Your task to perform on an android device: Search for the best rated headphones on AliExpress. Image 0: 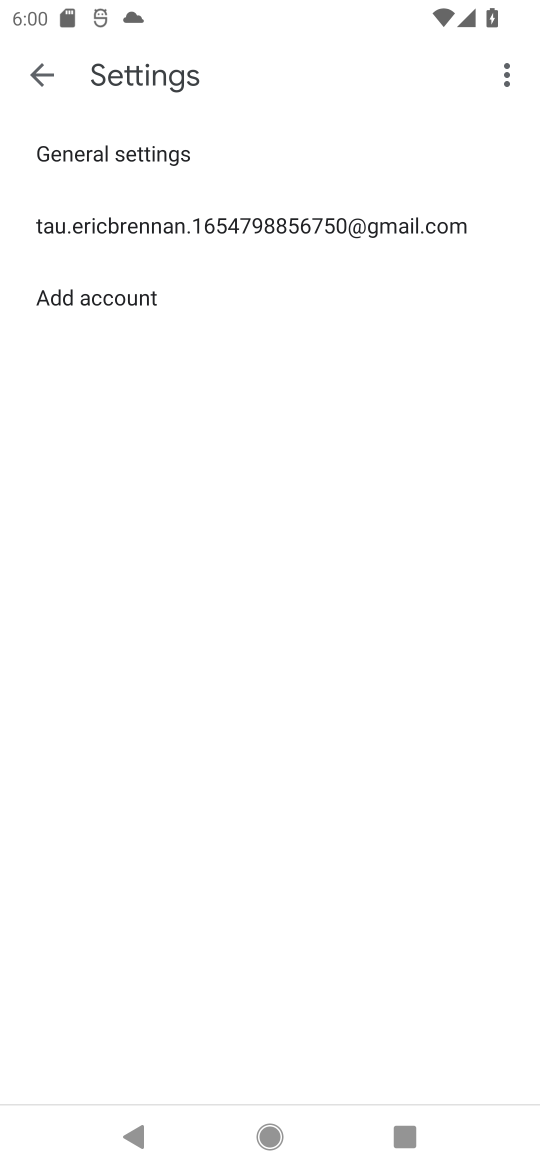
Step 0: press home button
Your task to perform on an android device: Search for the best rated headphones on AliExpress. Image 1: 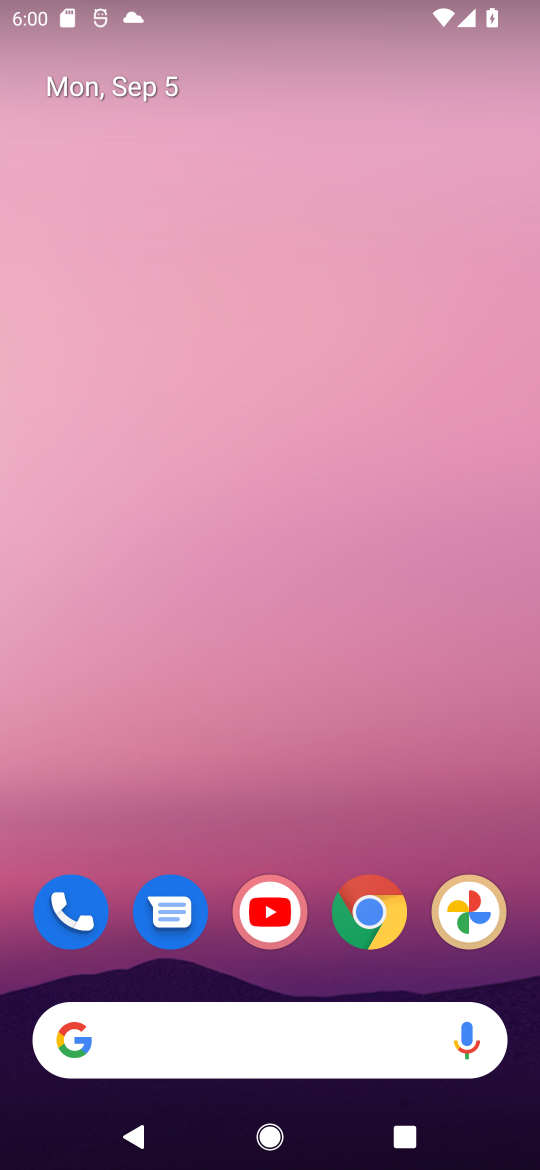
Step 1: click (363, 907)
Your task to perform on an android device: Search for the best rated headphones on AliExpress. Image 2: 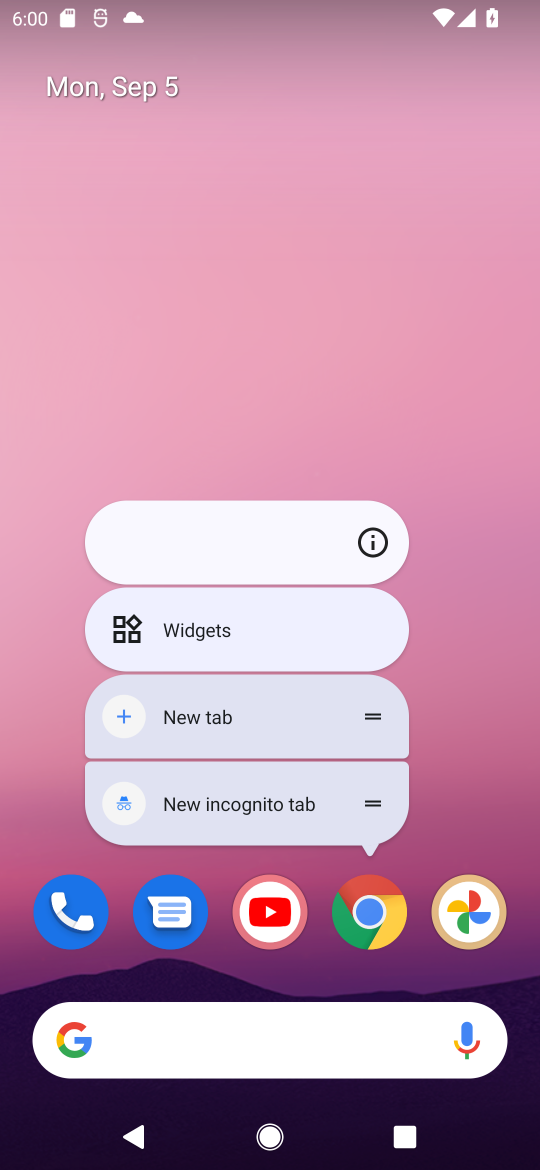
Step 2: click (363, 913)
Your task to perform on an android device: Search for the best rated headphones on AliExpress. Image 3: 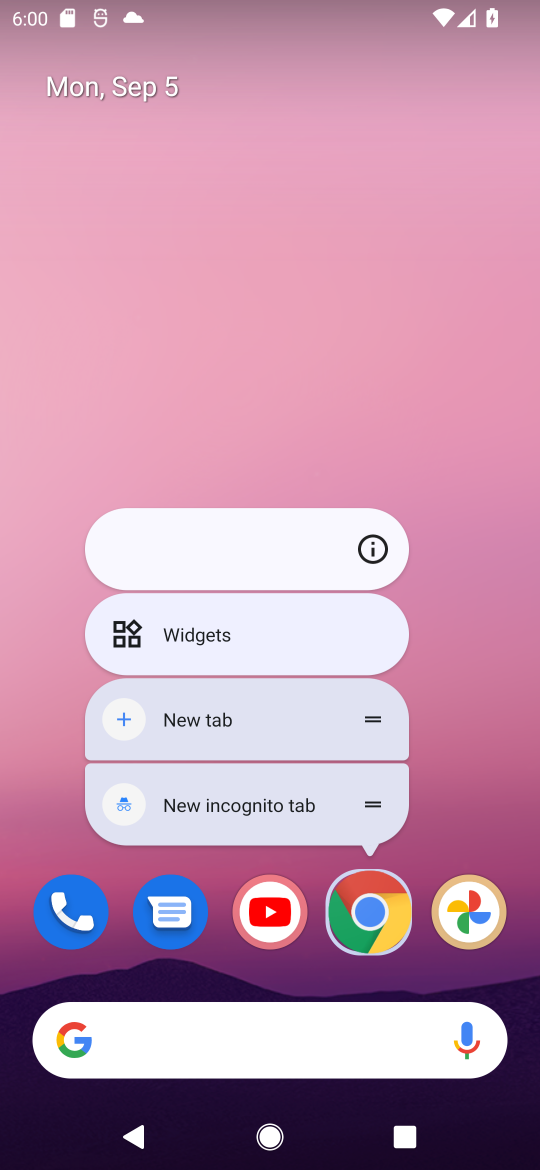
Step 3: click (362, 908)
Your task to perform on an android device: Search for the best rated headphones on AliExpress. Image 4: 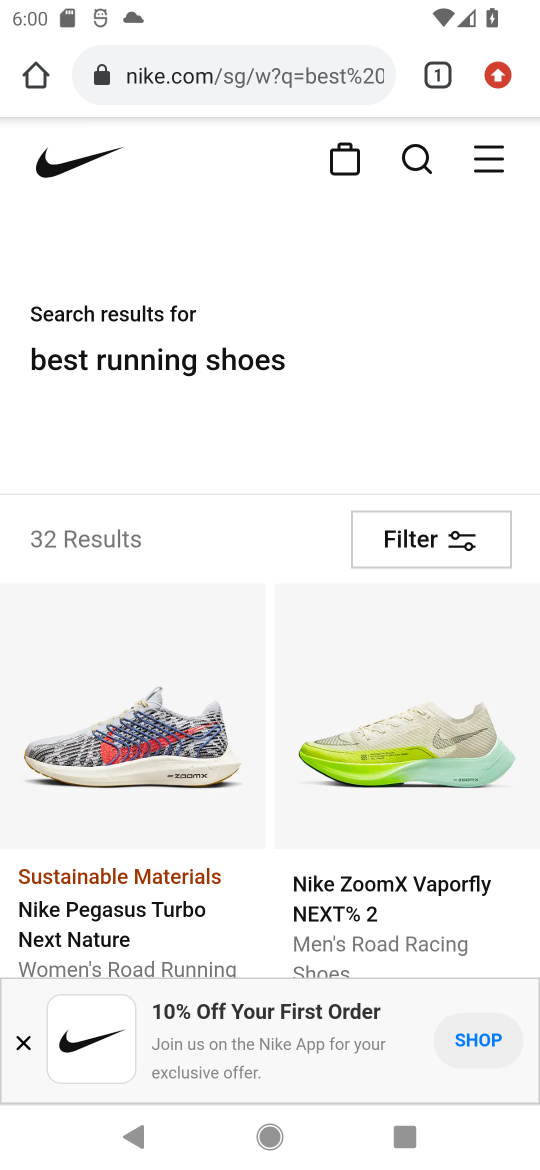
Step 4: click (257, 69)
Your task to perform on an android device: Search for the best rated headphones on AliExpress. Image 5: 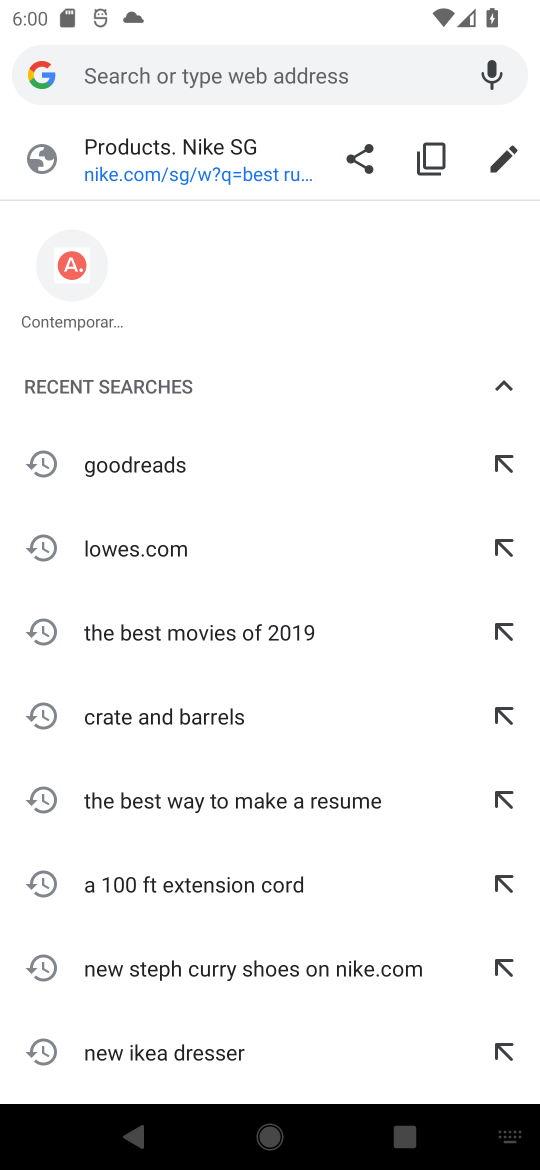
Step 5: type "AliExpress"
Your task to perform on an android device: Search for the best rated headphones on AliExpress. Image 6: 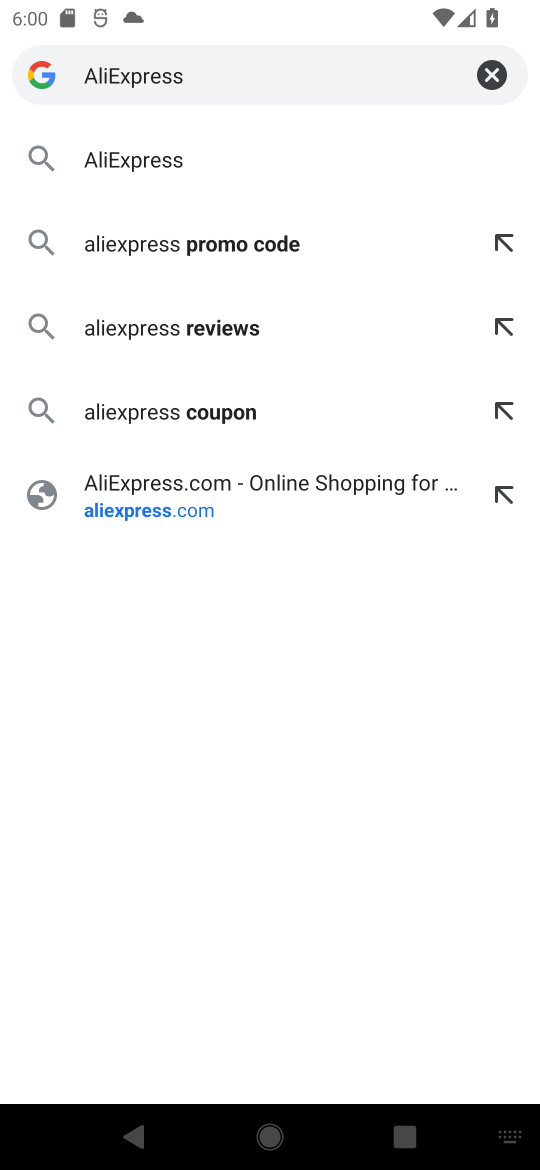
Step 6: click (165, 186)
Your task to perform on an android device: Search for the best rated headphones on AliExpress. Image 7: 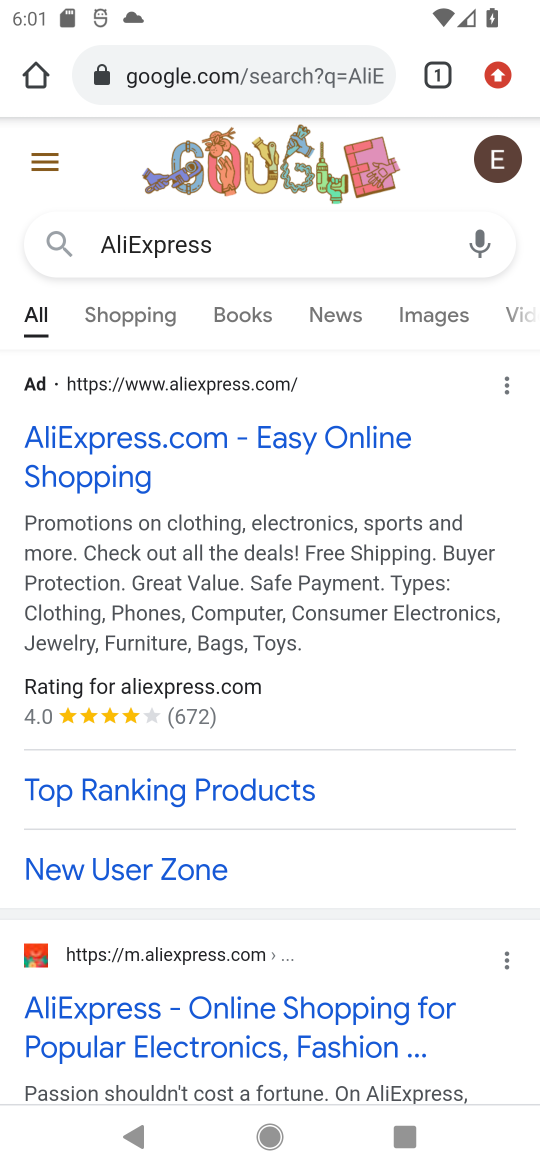
Step 7: click (139, 449)
Your task to perform on an android device: Search for the best rated headphones on AliExpress. Image 8: 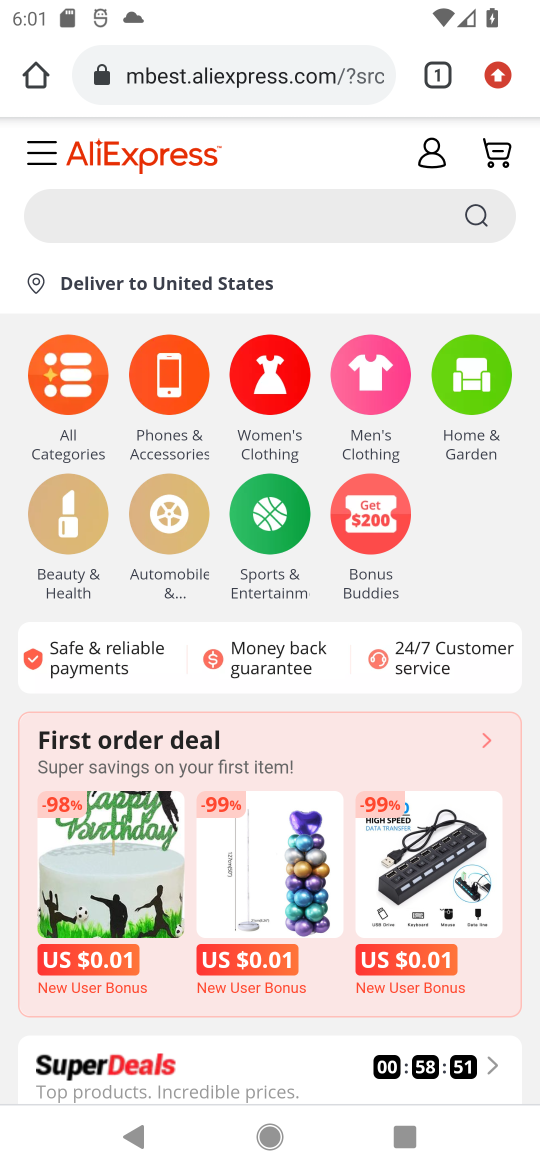
Step 8: click (288, 206)
Your task to perform on an android device: Search for the best rated headphones on AliExpress. Image 9: 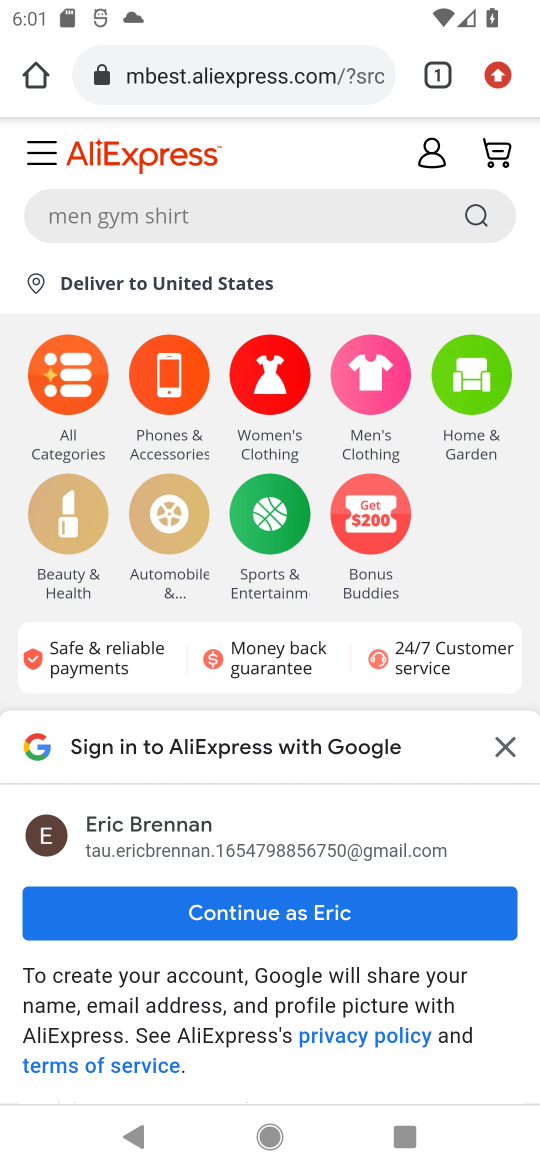
Step 9: click (397, 1165)
Your task to perform on an android device: Search for the best rated headphones on AliExpress. Image 10: 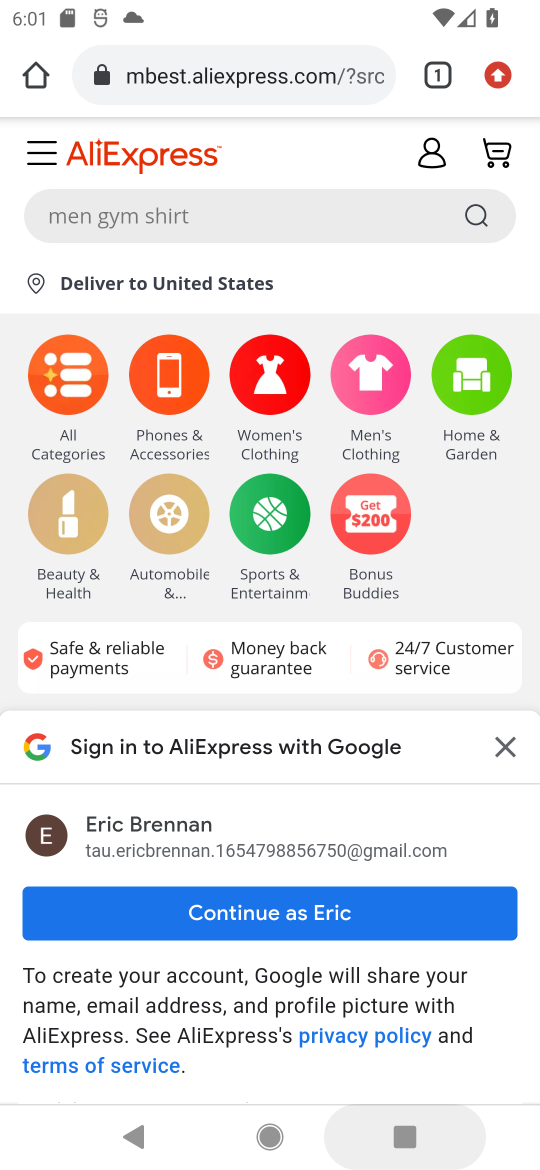
Step 10: type "the best rated headphones"
Your task to perform on an android device: Search for the best rated headphones on AliExpress. Image 11: 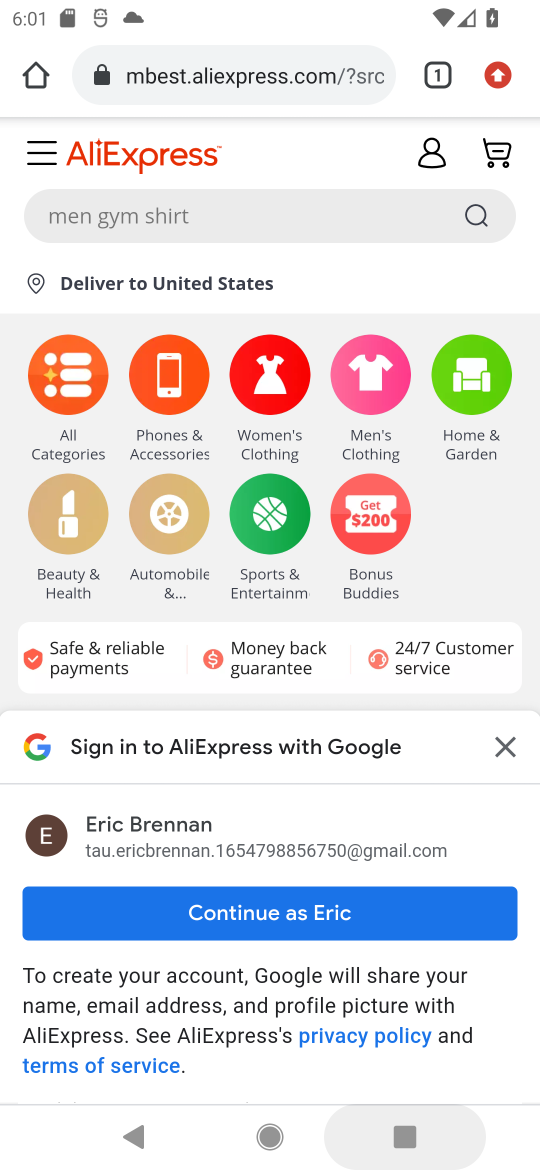
Step 11: drag from (395, 1169) to (430, 264)
Your task to perform on an android device: Search for the best rated headphones on AliExpress. Image 12: 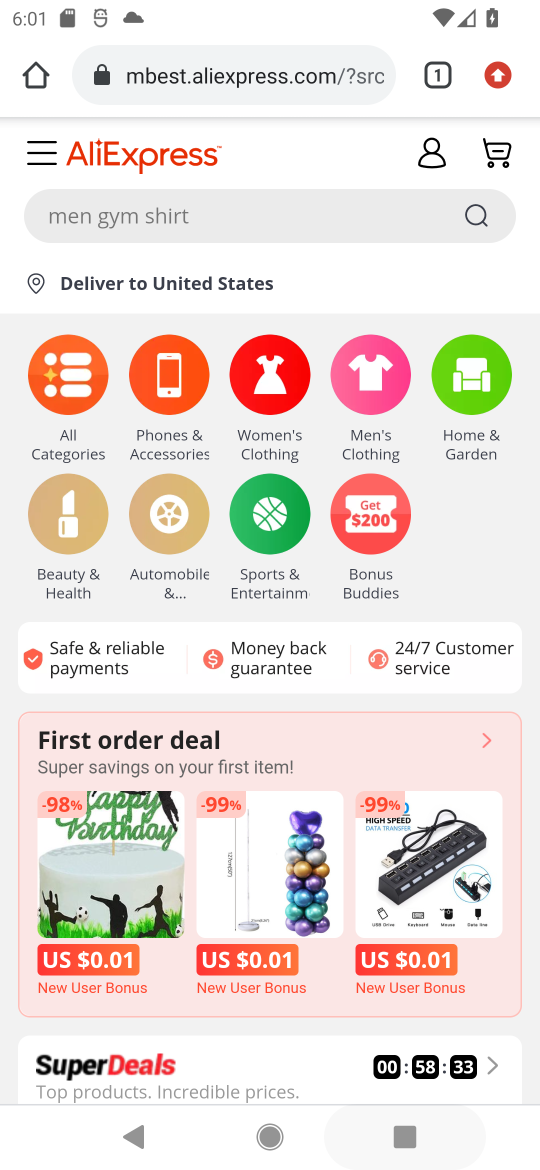
Step 12: click (310, 210)
Your task to perform on an android device: Search for the best rated headphones on AliExpress. Image 13: 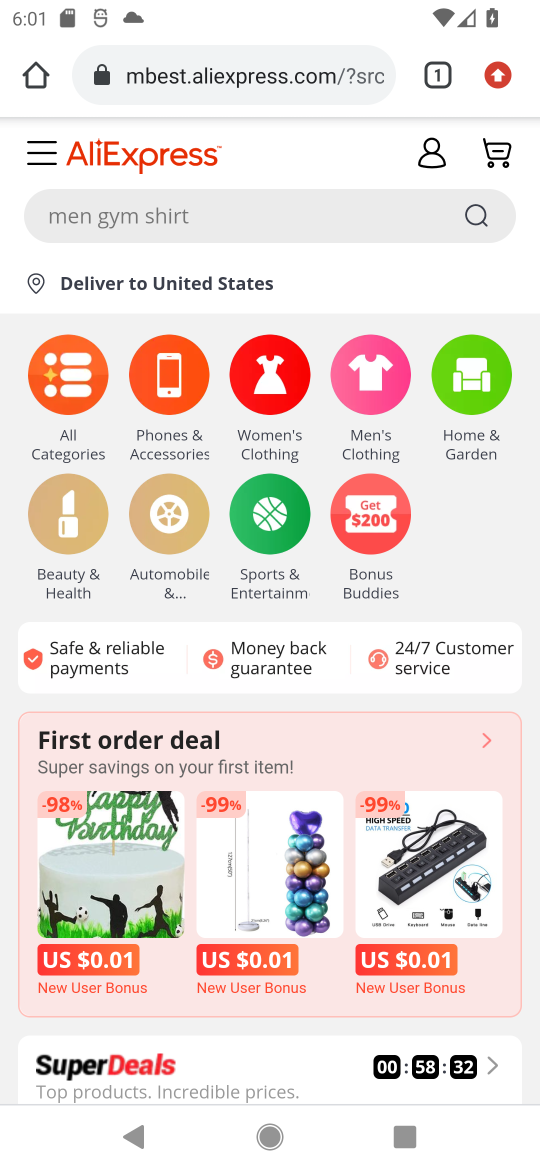
Step 13: click (310, 210)
Your task to perform on an android device: Search for the best rated headphones on AliExpress. Image 14: 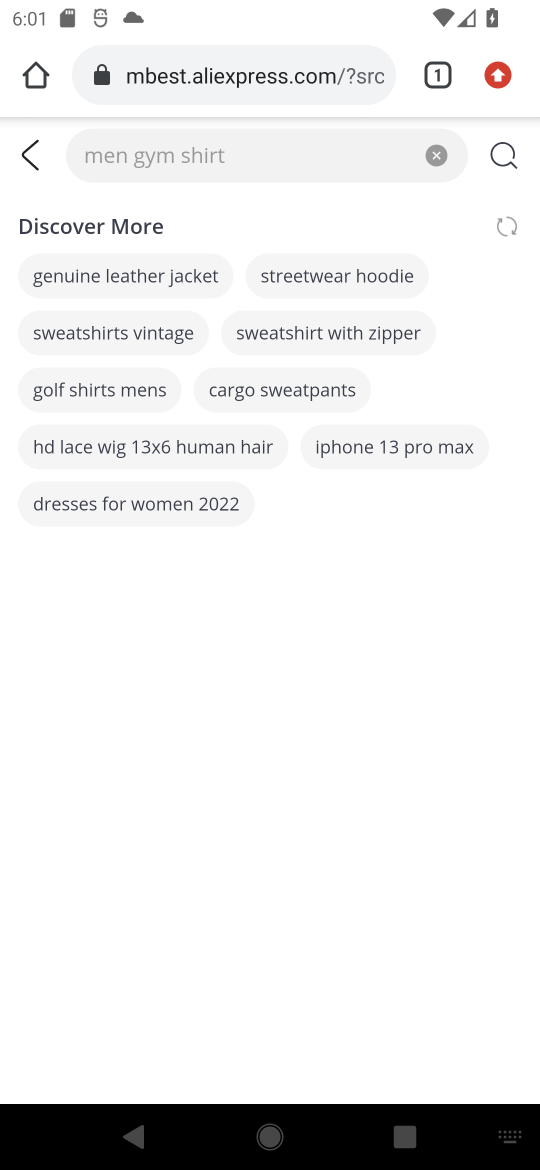
Step 14: type "the best rated headphones"
Your task to perform on an android device: Search for the best rated headphones on AliExpress. Image 15: 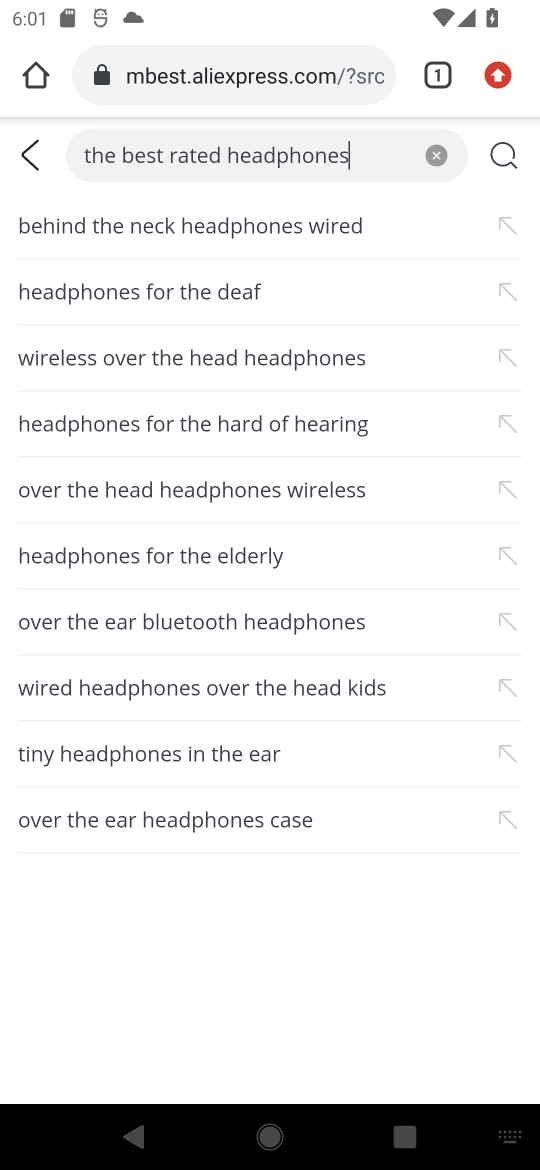
Step 15: click (511, 144)
Your task to perform on an android device: Search for the best rated headphones on AliExpress. Image 16: 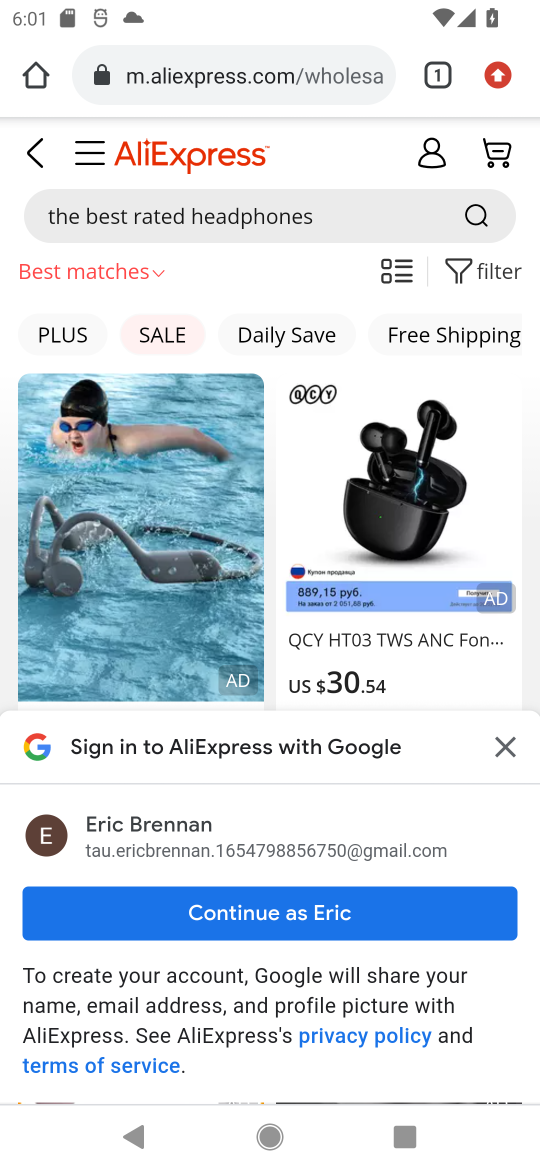
Step 16: click (250, 903)
Your task to perform on an android device: Search for the best rated headphones on AliExpress. Image 17: 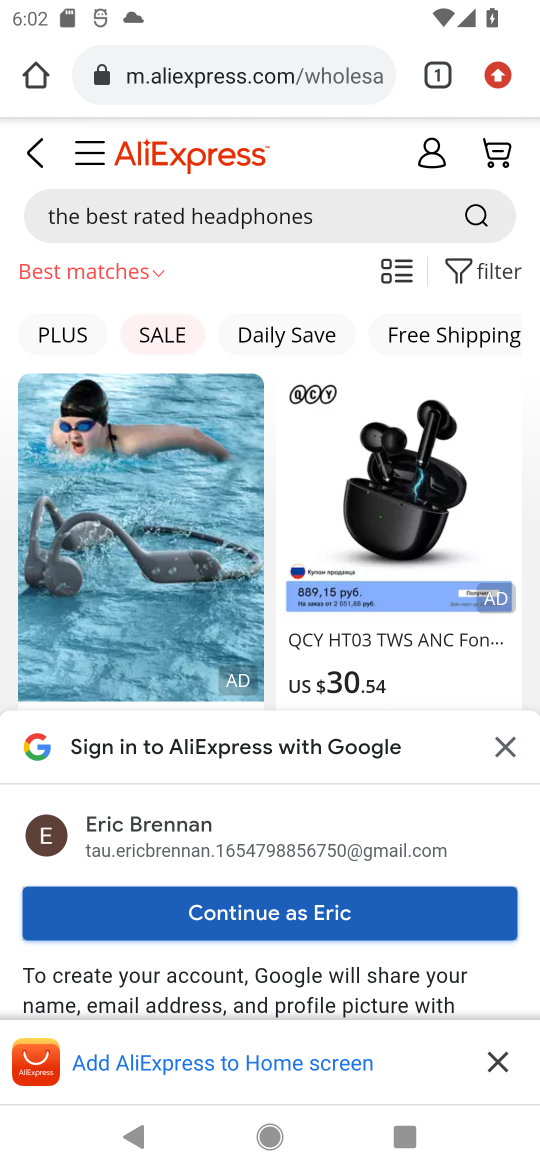
Step 17: click (290, 913)
Your task to perform on an android device: Search for the best rated headphones on AliExpress. Image 18: 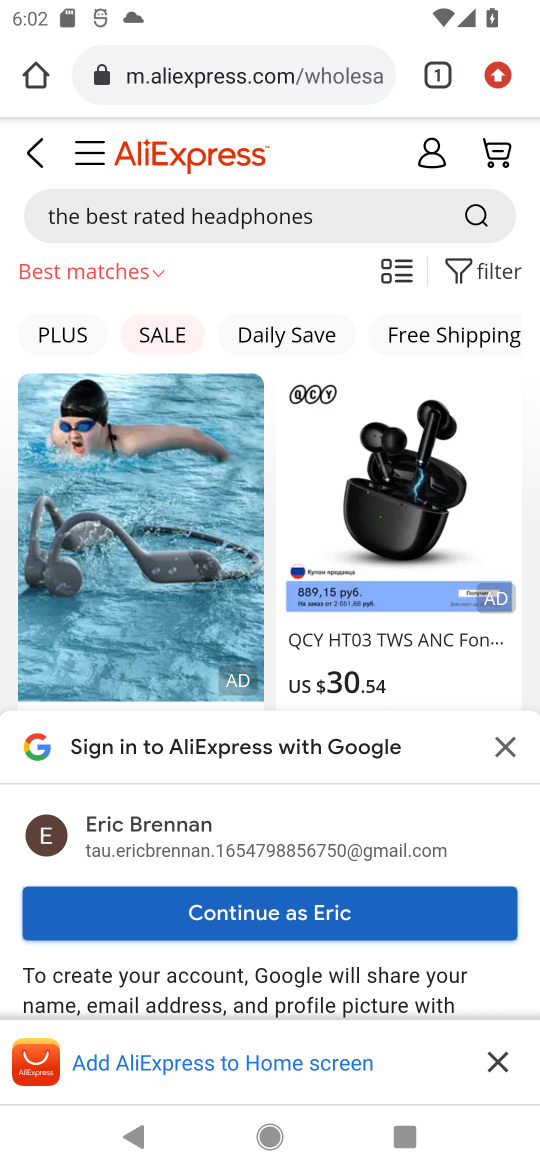
Step 18: task complete